Your task to perform on an android device: turn on improve location accuracy Image 0: 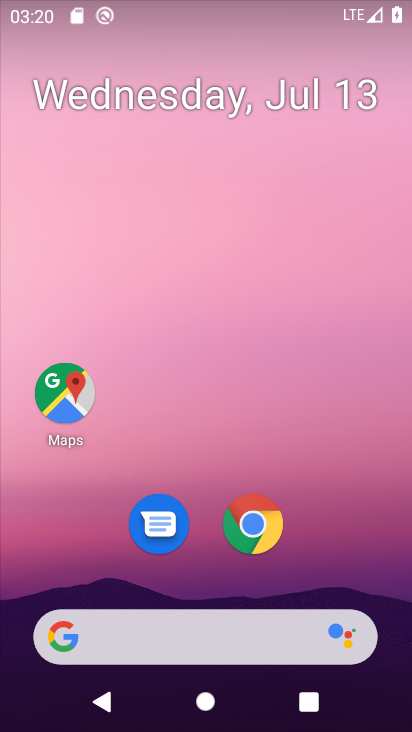
Step 0: drag from (338, 338) to (321, 11)
Your task to perform on an android device: turn on improve location accuracy Image 1: 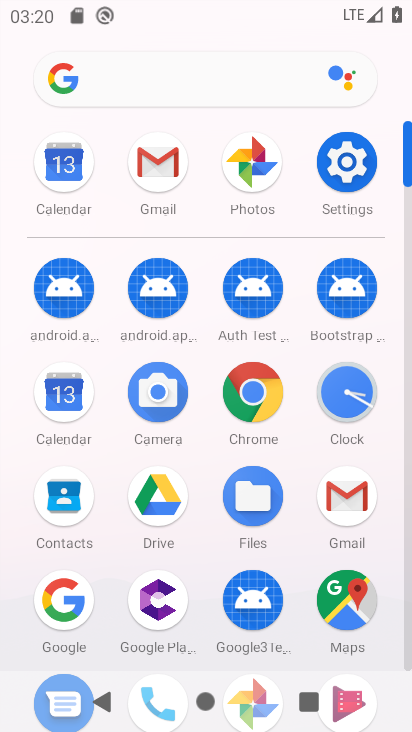
Step 1: click (344, 154)
Your task to perform on an android device: turn on improve location accuracy Image 2: 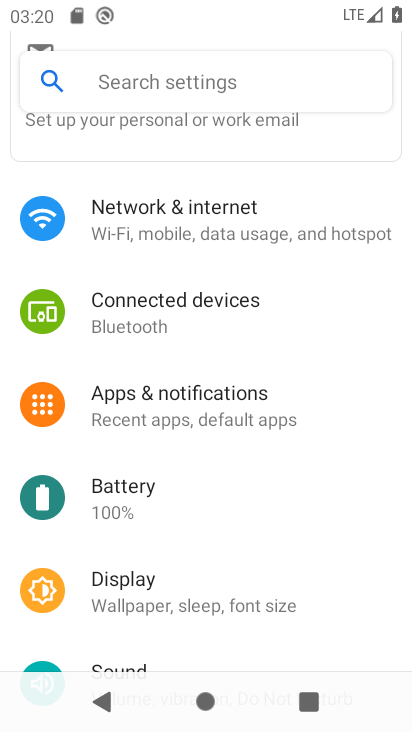
Step 2: drag from (260, 558) to (202, 29)
Your task to perform on an android device: turn on improve location accuracy Image 3: 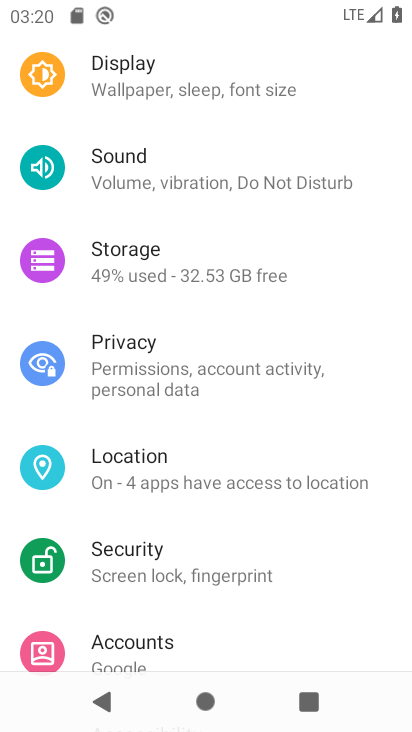
Step 3: click (187, 463)
Your task to perform on an android device: turn on improve location accuracy Image 4: 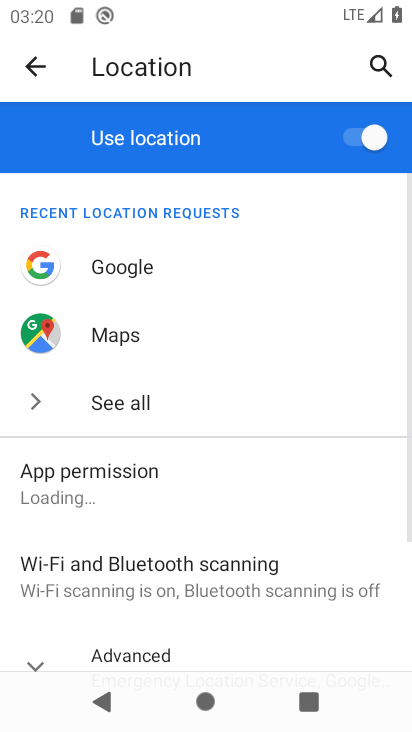
Step 4: drag from (295, 508) to (245, 183)
Your task to perform on an android device: turn on improve location accuracy Image 5: 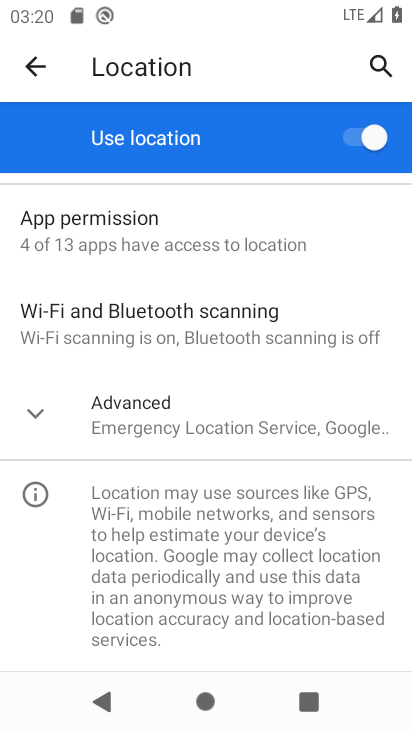
Step 5: click (41, 416)
Your task to perform on an android device: turn on improve location accuracy Image 6: 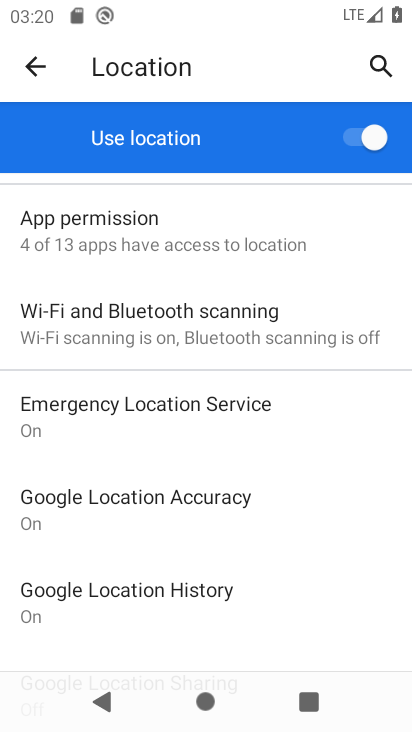
Step 6: click (118, 518)
Your task to perform on an android device: turn on improve location accuracy Image 7: 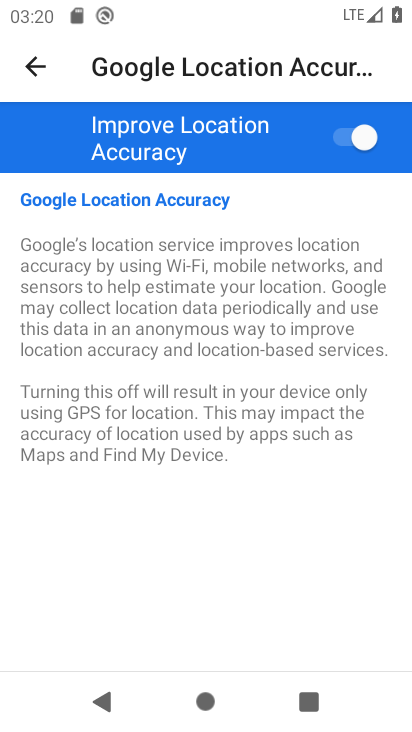
Step 7: task complete